Your task to perform on an android device: Open settings Image 0: 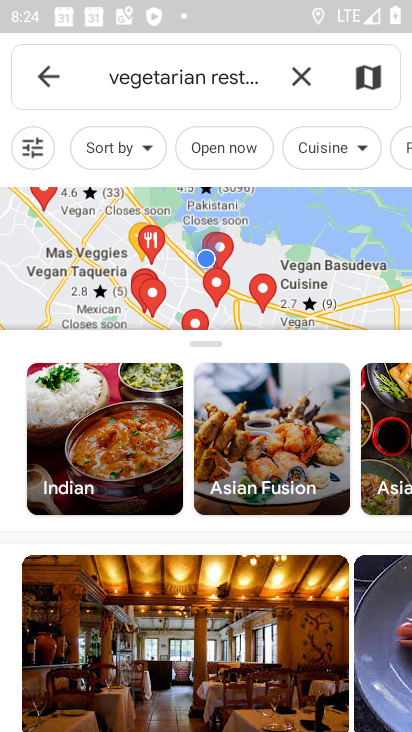
Step 0: press home button
Your task to perform on an android device: Open settings Image 1: 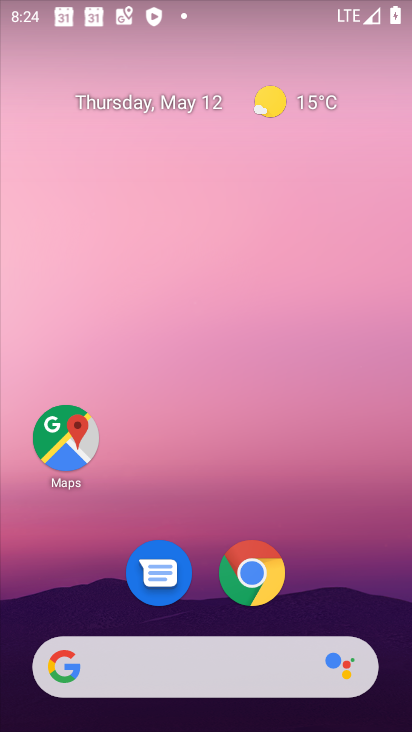
Step 1: drag from (313, 526) to (254, 125)
Your task to perform on an android device: Open settings Image 2: 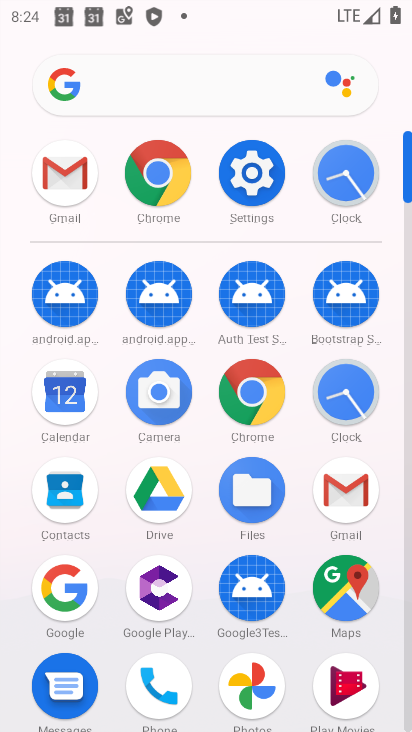
Step 2: click (255, 175)
Your task to perform on an android device: Open settings Image 3: 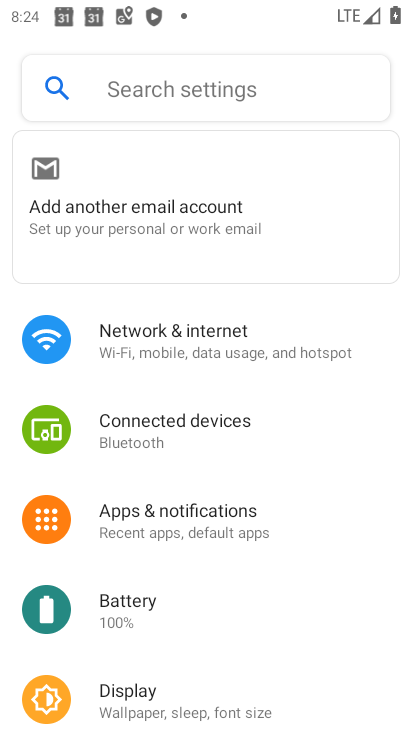
Step 3: task complete